Your task to perform on an android device: Open Maps and search for coffee Image 0: 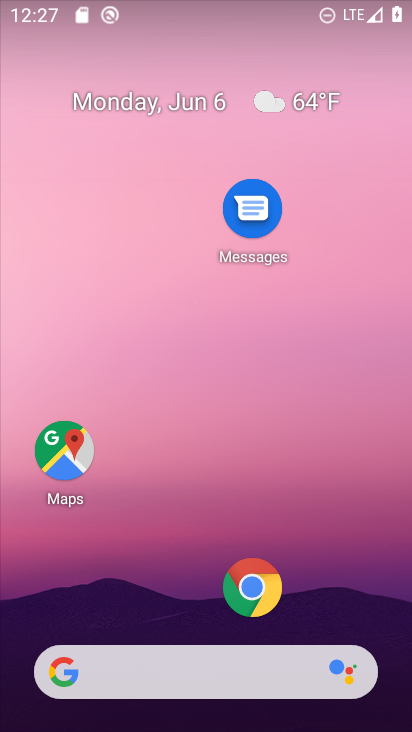
Step 0: click (47, 453)
Your task to perform on an android device: Open Maps and search for coffee Image 1: 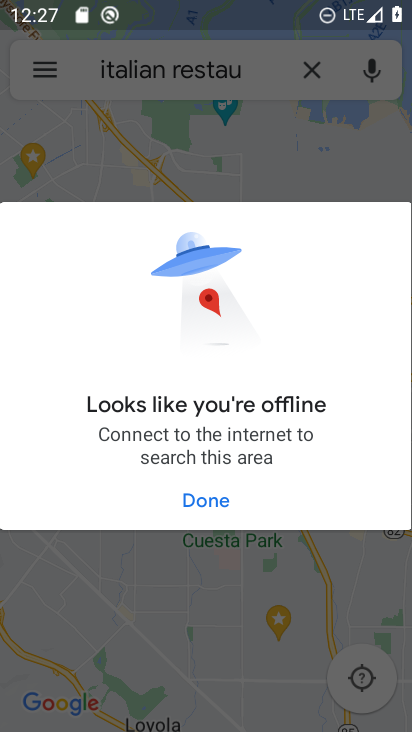
Step 1: click (71, 465)
Your task to perform on an android device: Open Maps and search for coffee Image 2: 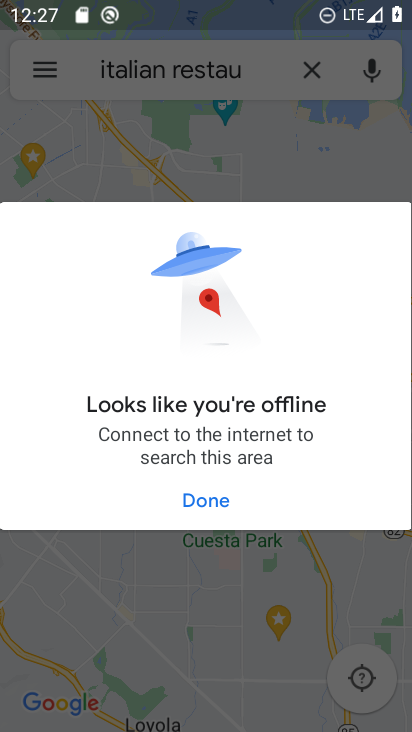
Step 2: click (209, 506)
Your task to perform on an android device: Open Maps and search for coffee Image 3: 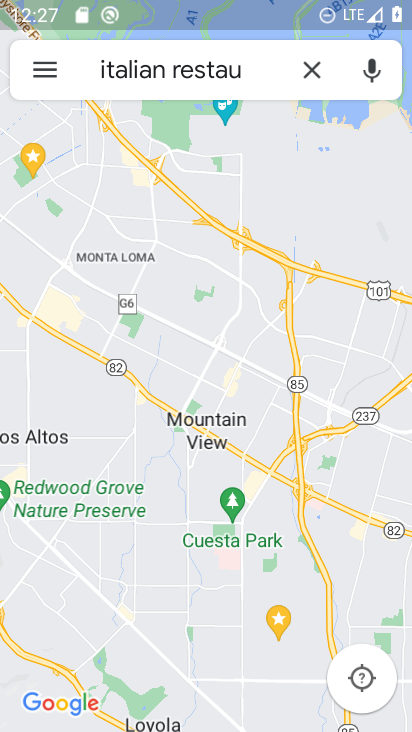
Step 3: click (314, 74)
Your task to perform on an android device: Open Maps and search for coffee Image 4: 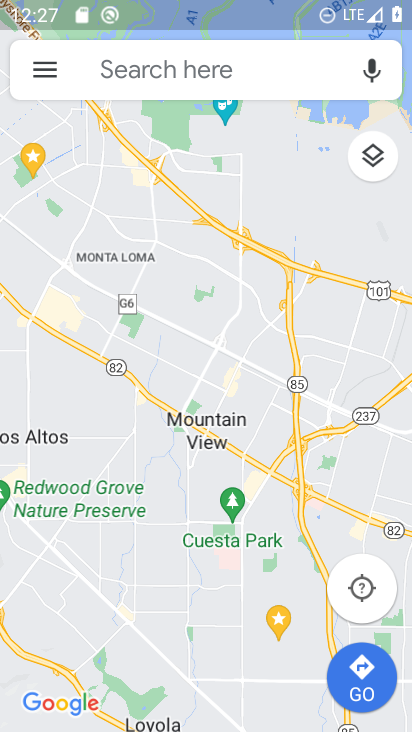
Step 4: click (224, 71)
Your task to perform on an android device: Open Maps and search for coffee Image 5: 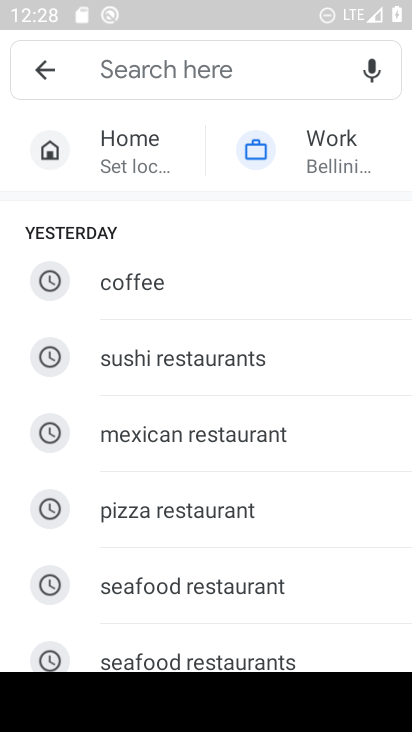
Step 5: click (152, 297)
Your task to perform on an android device: Open Maps and search for coffee Image 6: 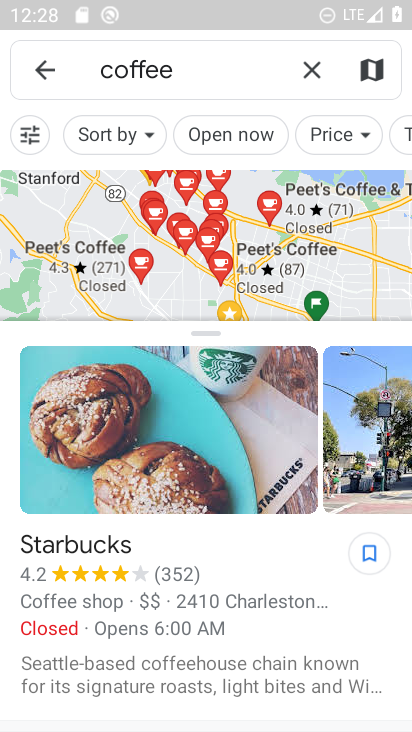
Step 6: task complete